Your task to perform on an android device: Search for Mexican restaurants on Maps Image 0: 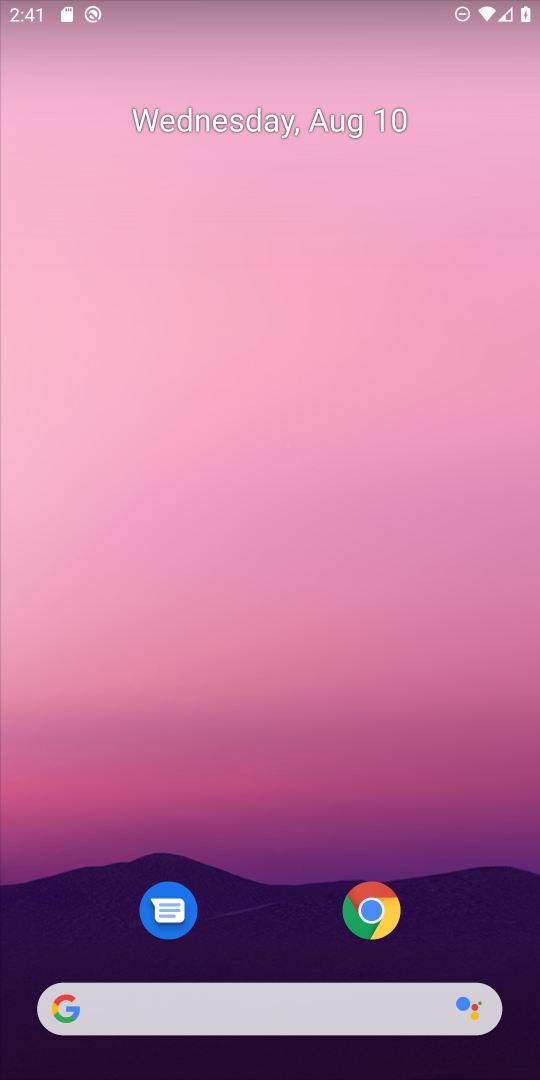
Step 0: drag from (290, 923) to (91, 123)
Your task to perform on an android device: Search for Mexican restaurants on Maps Image 1: 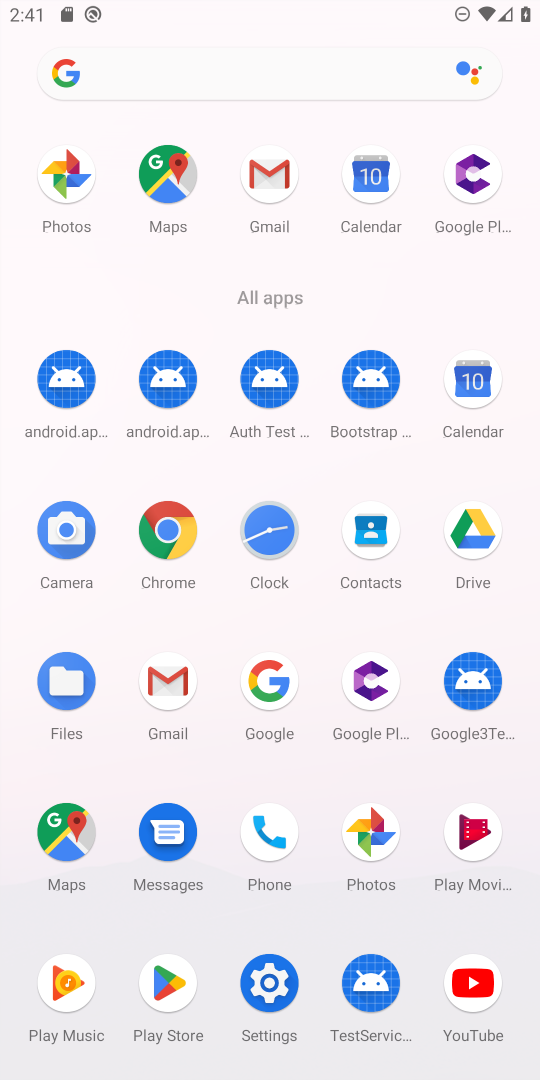
Step 1: click (151, 196)
Your task to perform on an android device: Search for Mexican restaurants on Maps Image 2: 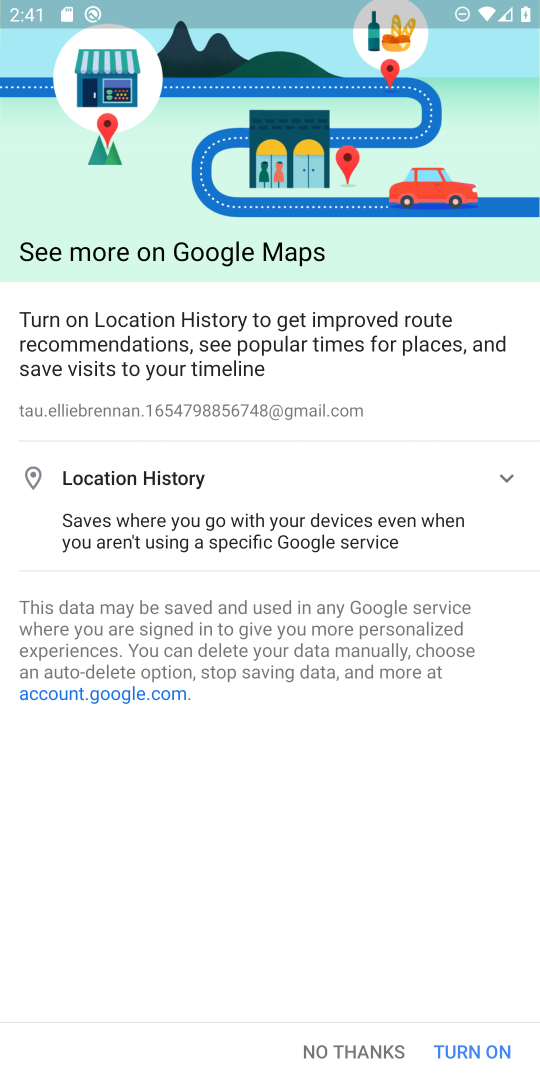
Step 2: click (468, 1063)
Your task to perform on an android device: Search for Mexican restaurants on Maps Image 3: 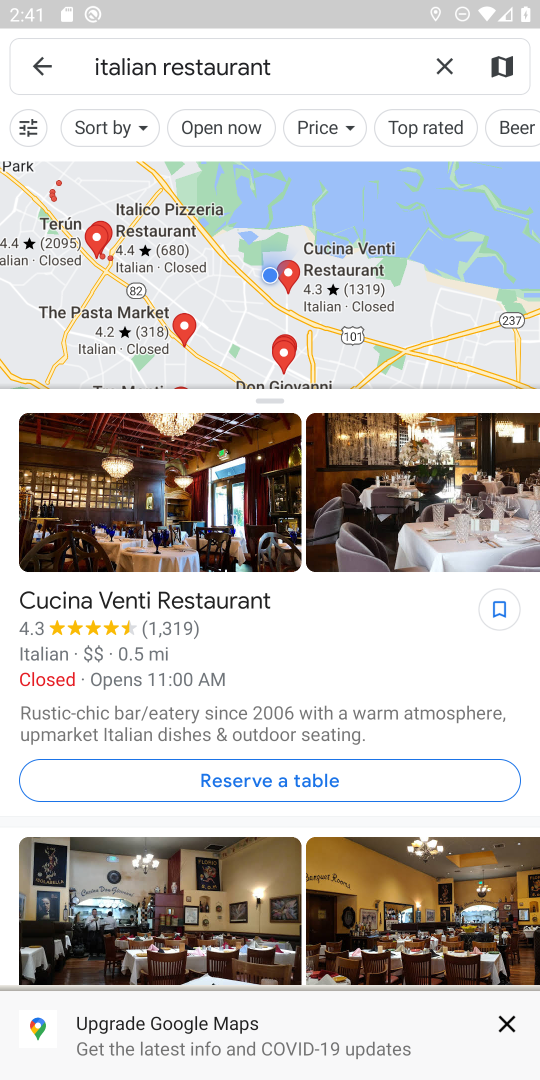
Step 3: click (440, 68)
Your task to perform on an android device: Search for Mexican restaurants on Maps Image 4: 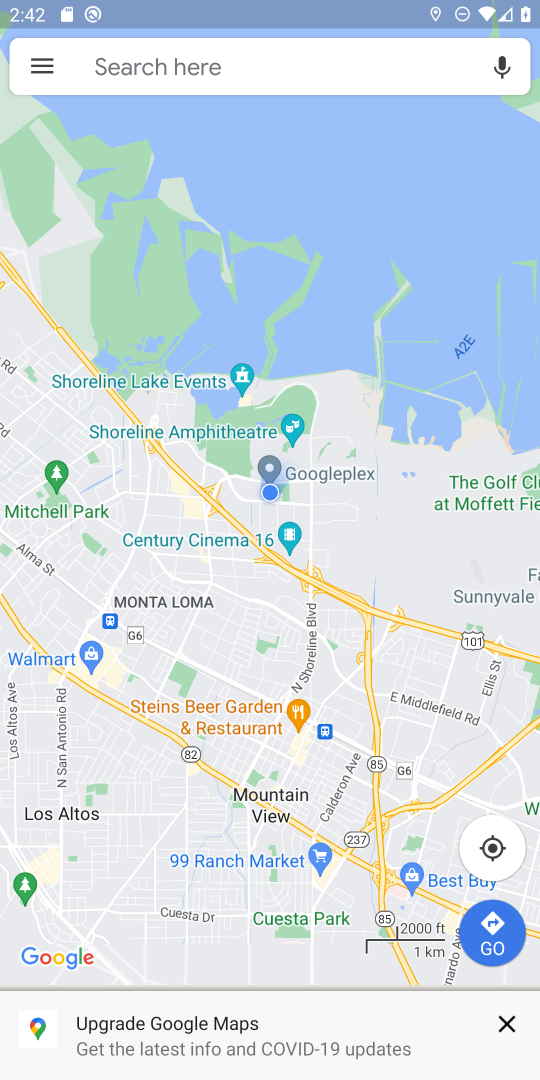
Step 4: click (268, 86)
Your task to perform on an android device: Search for Mexican restaurants on Maps Image 5: 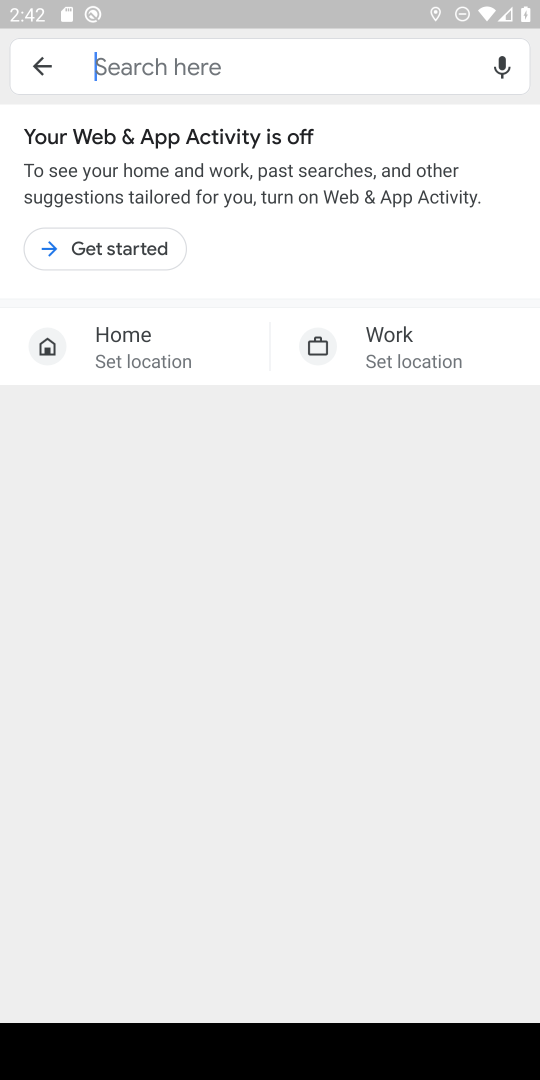
Step 5: type "maxican restaurant"
Your task to perform on an android device: Search for Mexican restaurants on Maps Image 6: 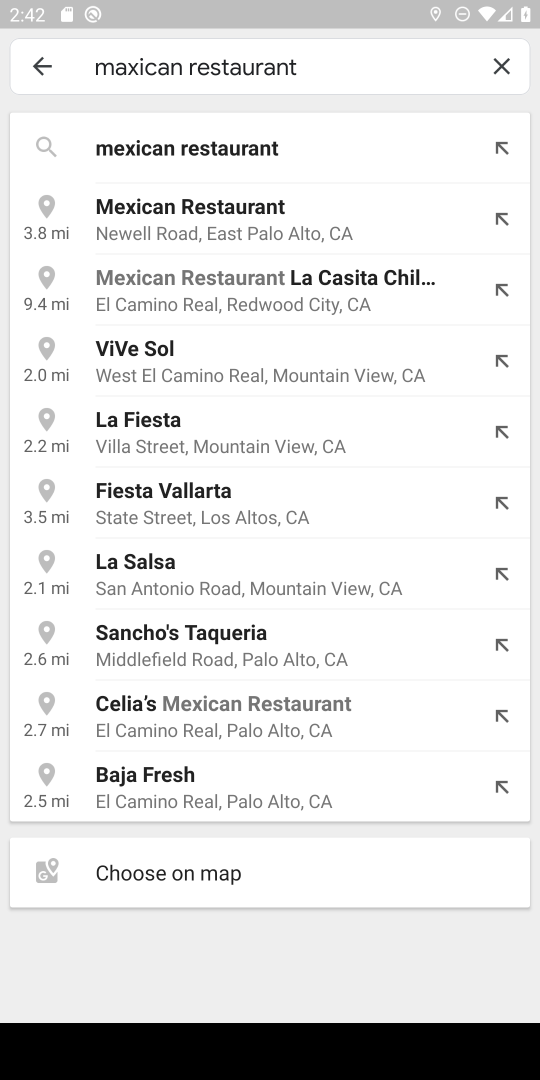
Step 6: click (164, 231)
Your task to perform on an android device: Search for Mexican restaurants on Maps Image 7: 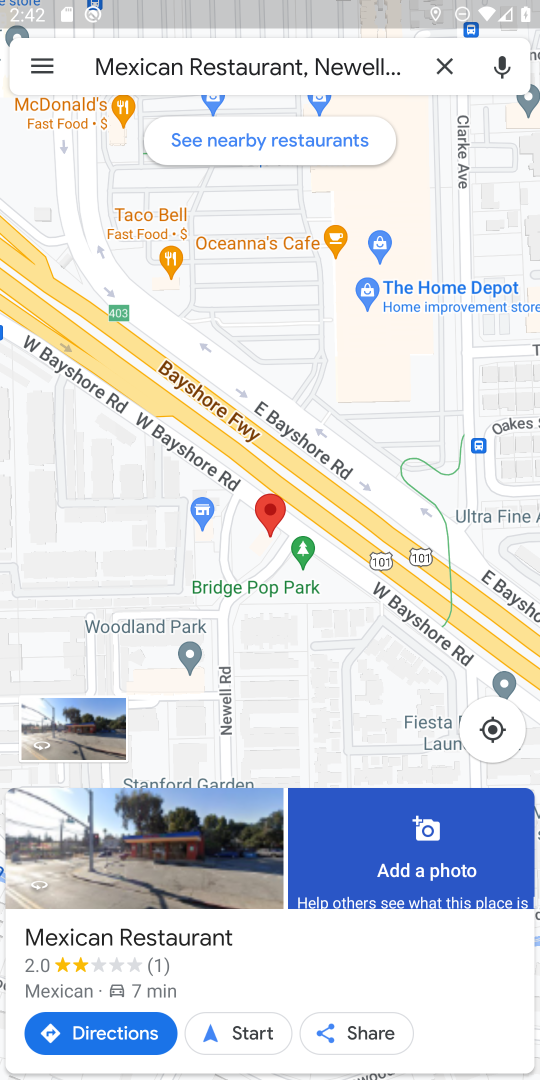
Step 7: task complete